Your task to perform on an android device: When is my next appointment? Image 0: 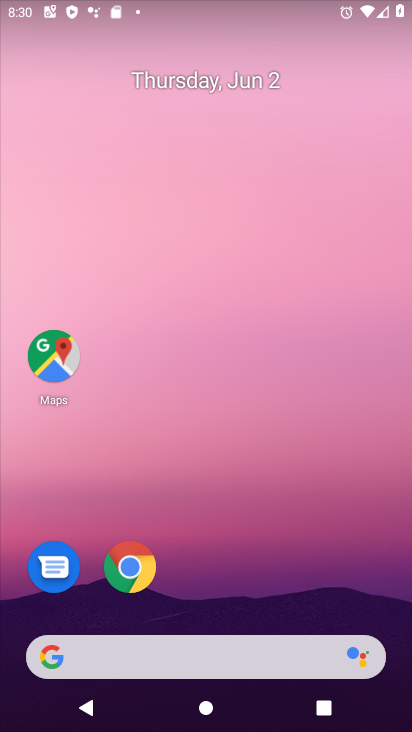
Step 0: drag from (235, 584) to (306, 308)
Your task to perform on an android device: When is my next appointment? Image 1: 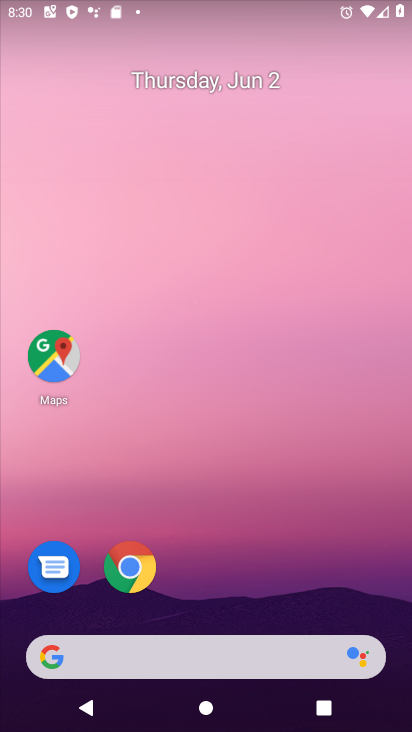
Step 1: drag from (214, 591) to (218, 79)
Your task to perform on an android device: When is my next appointment? Image 2: 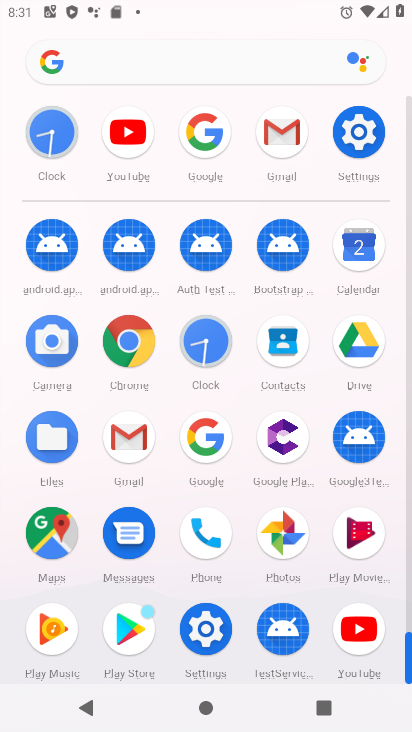
Step 2: click (360, 249)
Your task to perform on an android device: When is my next appointment? Image 3: 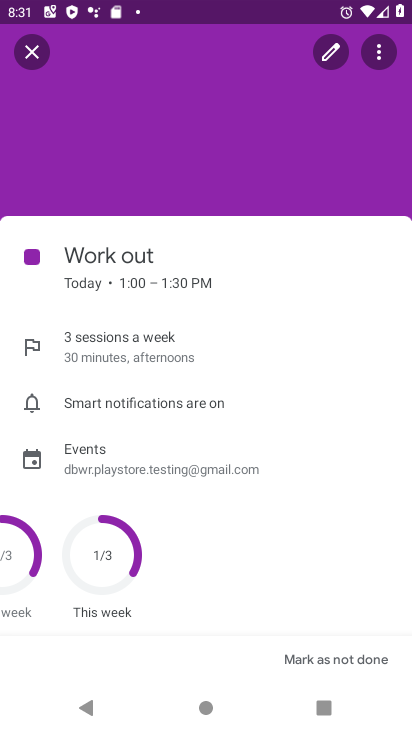
Step 3: click (32, 52)
Your task to perform on an android device: When is my next appointment? Image 4: 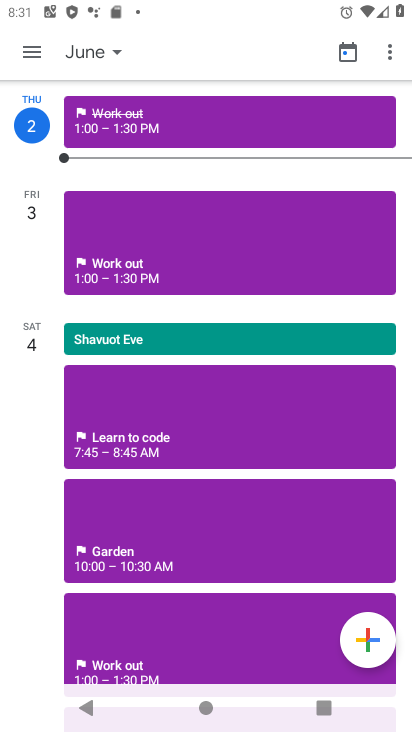
Step 4: click (349, 54)
Your task to perform on an android device: When is my next appointment? Image 5: 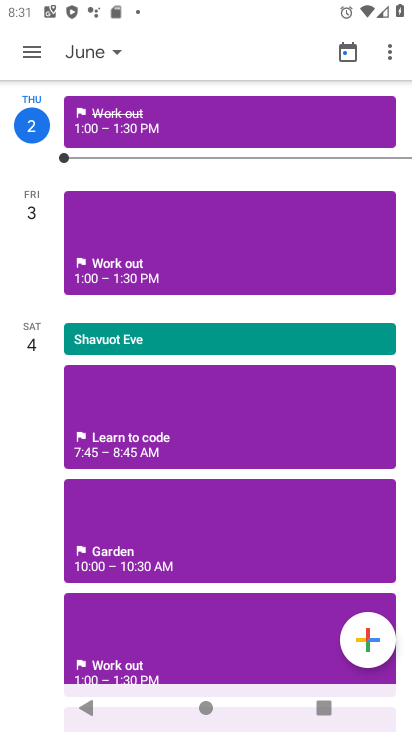
Step 5: click (349, 54)
Your task to perform on an android device: When is my next appointment? Image 6: 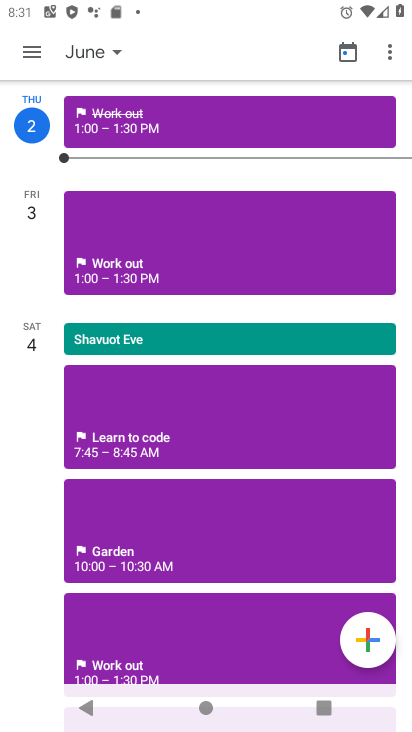
Step 6: click (113, 45)
Your task to perform on an android device: When is my next appointment? Image 7: 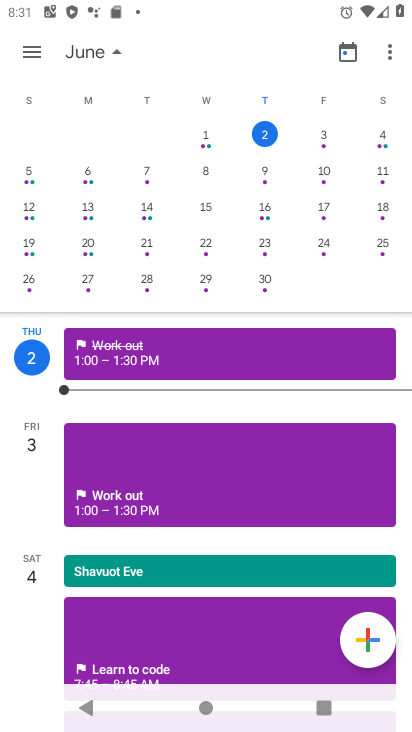
Step 7: click (336, 133)
Your task to perform on an android device: When is my next appointment? Image 8: 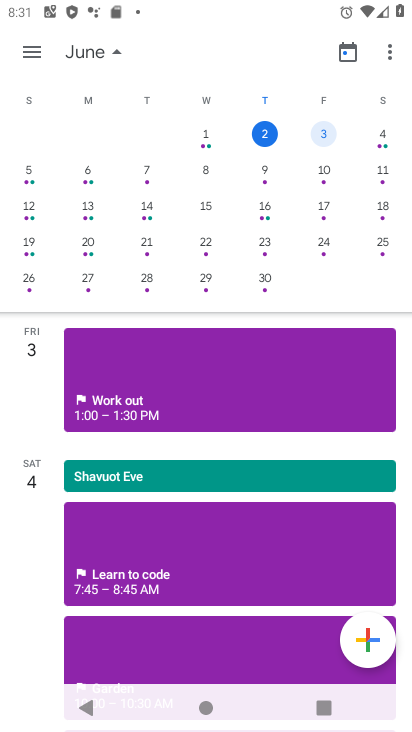
Step 8: click (35, 58)
Your task to perform on an android device: When is my next appointment? Image 9: 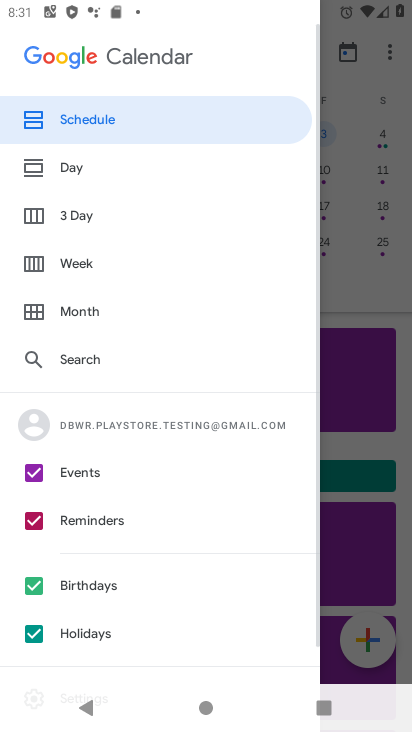
Step 9: click (56, 106)
Your task to perform on an android device: When is my next appointment? Image 10: 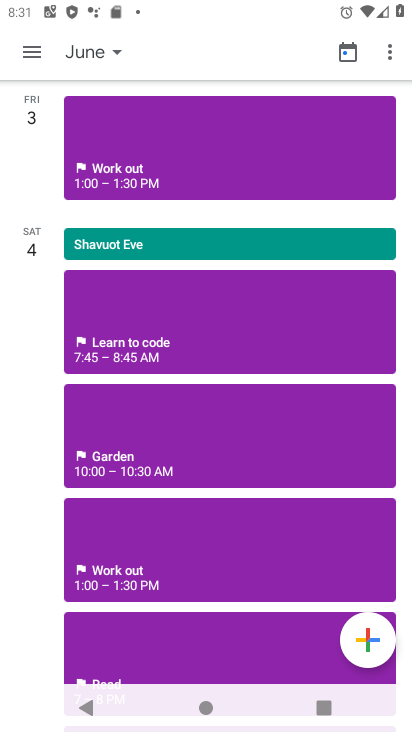
Step 10: task complete